Your task to perform on an android device: empty trash in google photos Image 0: 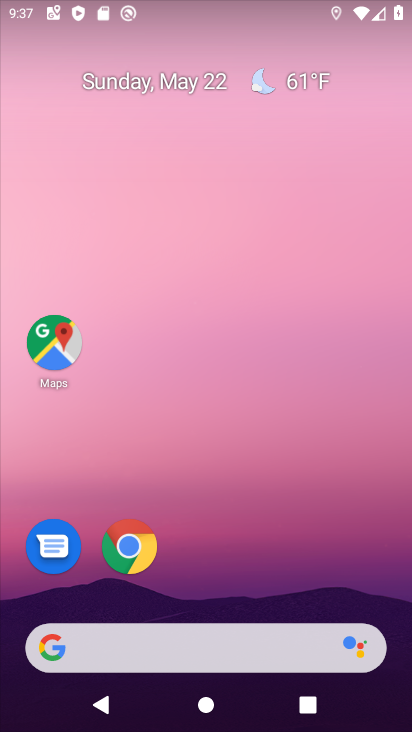
Step 0: drag from (260, 563) to (234, 51)
Your task to perform on an android device: empty trash in google photos Image 1: 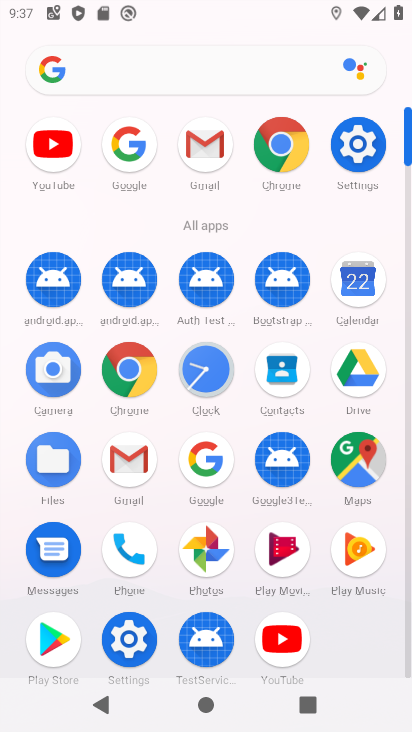
Step 1: click (210, 550)
Your task to perform on an android device: empty trash in google photos Image 2: 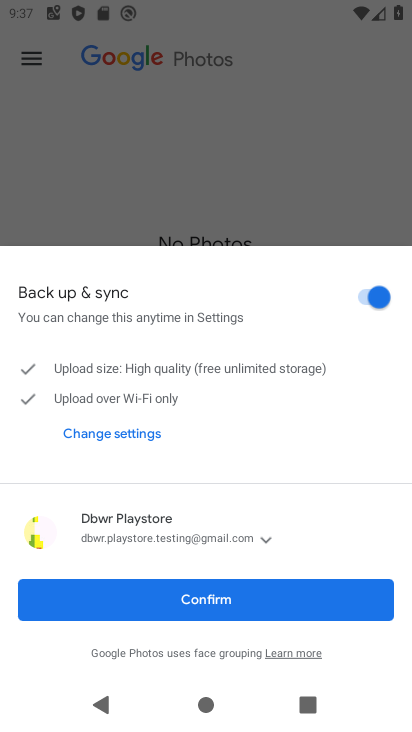
Step 2: click (199, 594)
Your task to perform on an android device: empty trash in google photos Image 3: 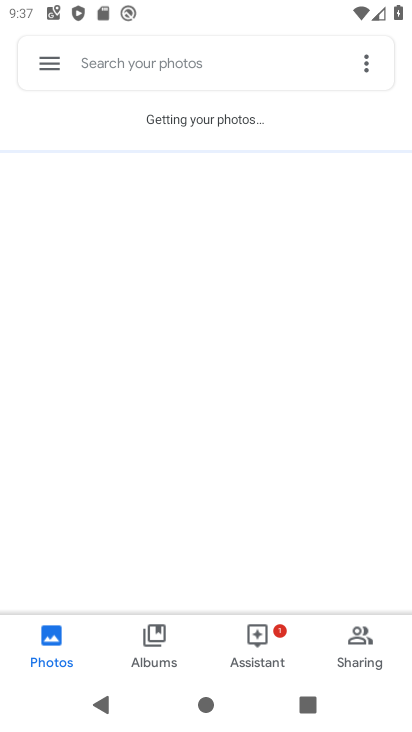
Step 3: click (47, 69)
Your task to perform on an android device: empty trash in google photos Image 4: 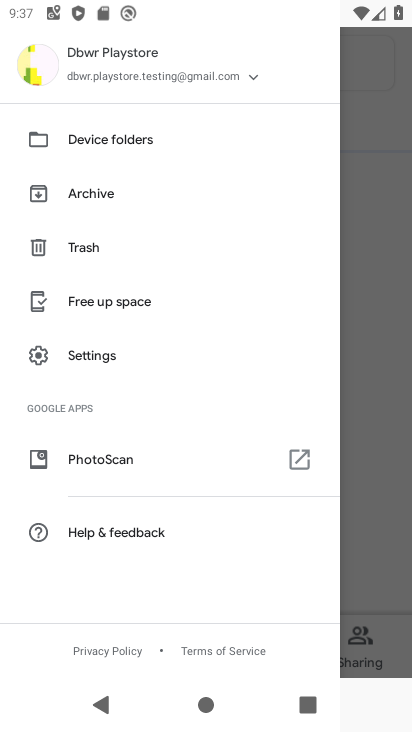
Step 4: click (74, 253)
Your task to perform on an android device: empty trash in google photos Image 5: 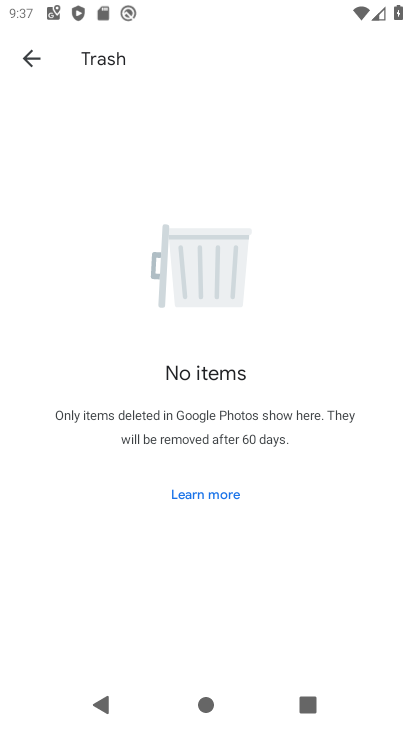
Step 5: task complete